Your task to perform on an android device: Open wifi settings Image 0: 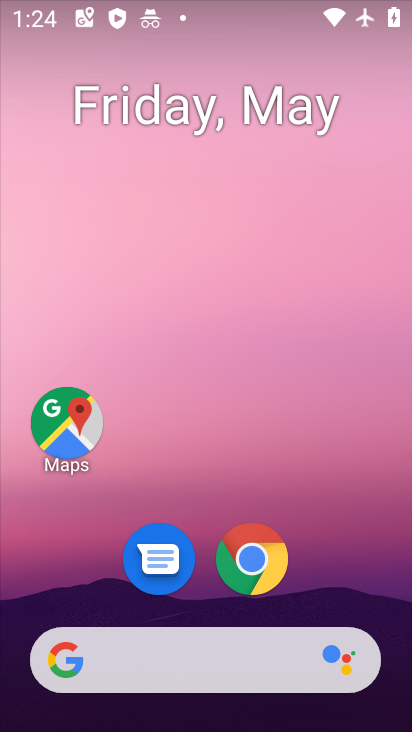
Step 0: drag from (369, 523) to (376, 102)
Your task to perform on an android device: Open wifi settings Image 1: 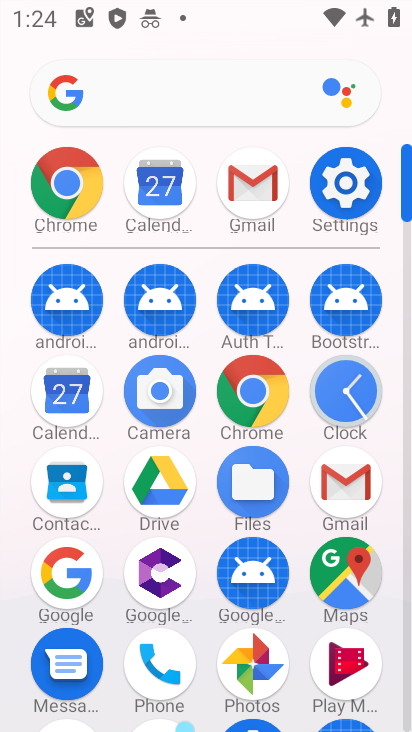
Step 1: click (354, 188)
Your task to perform on an android device: Open wifi settings Image 2: 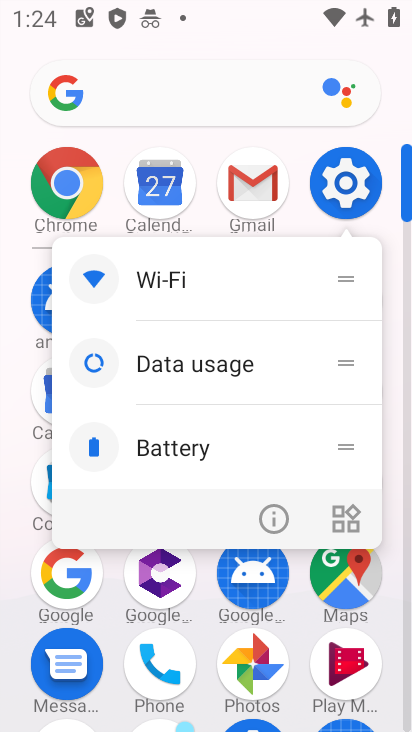
Step 2: click (352, 187)
Your task to perform on an android device: Open wifi settings Image 3: 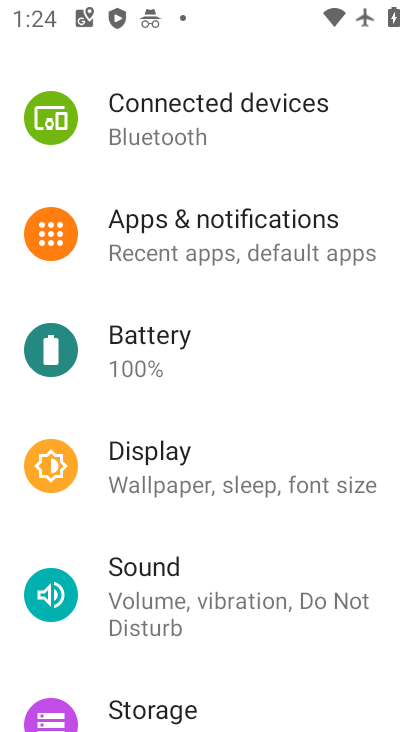
Step 3: drag from (259, 137) to (288, 563)
Your task to perform on an android device: Open wifi settings Image 4: 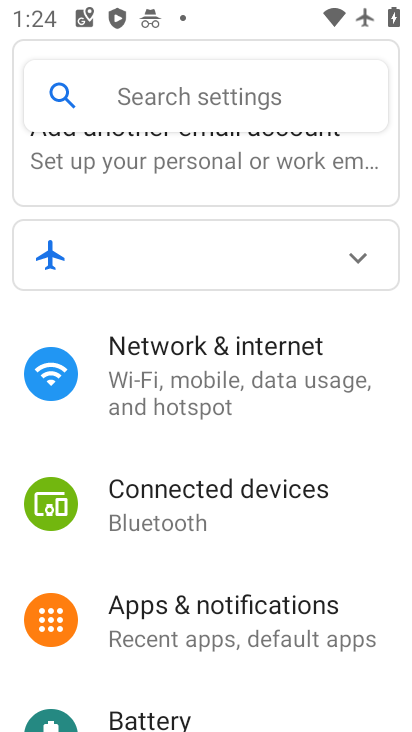
Step 4: click (244, 384)
Your task to perform on an android device: Open wifi settings Image 5: 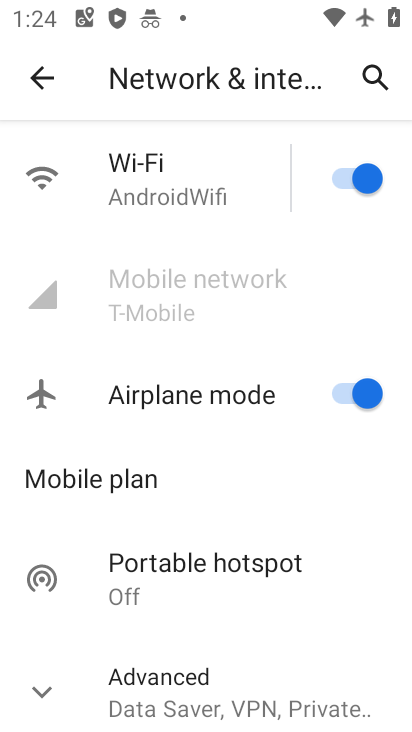
Step 5: click (192, 178)
Your task to perform on an android device: Open wifi settings Image 6: 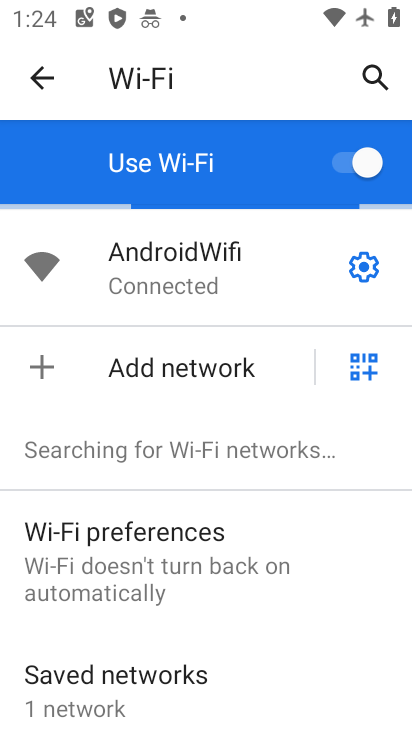
Step 6: click (372, 271)
Your task to perform on an android device: Open wifi settings Image 7: 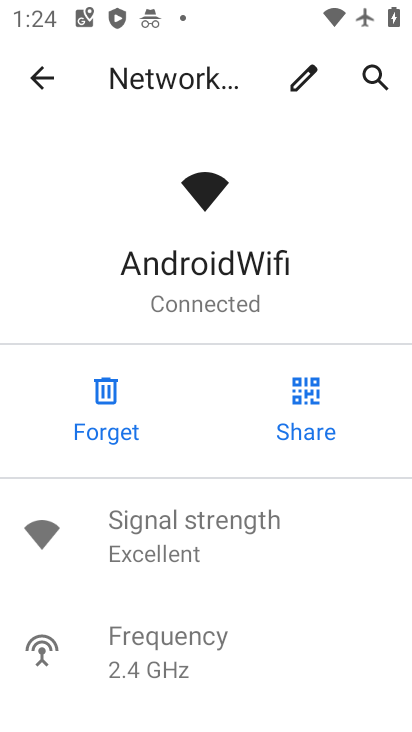
Step 7: task complete